Your task to perform on an android device: Toggle the flashlight Image 0: 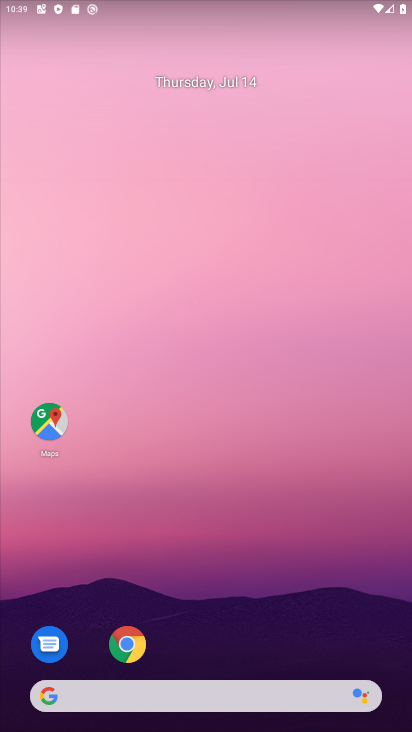
Step 0: drag from (127, 10) to (106, 475)
Your task to perform on an android device: Toggle the flashlight Image 1: 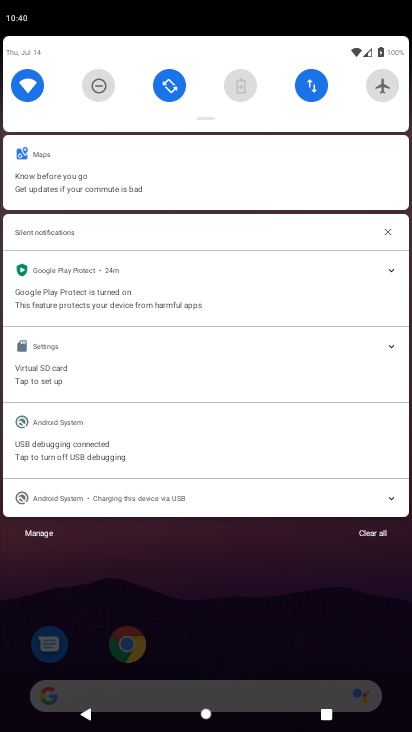
Step 1: task complete